Your task to perform on an android device: Open the calendar and show me this week's events? Image 0: 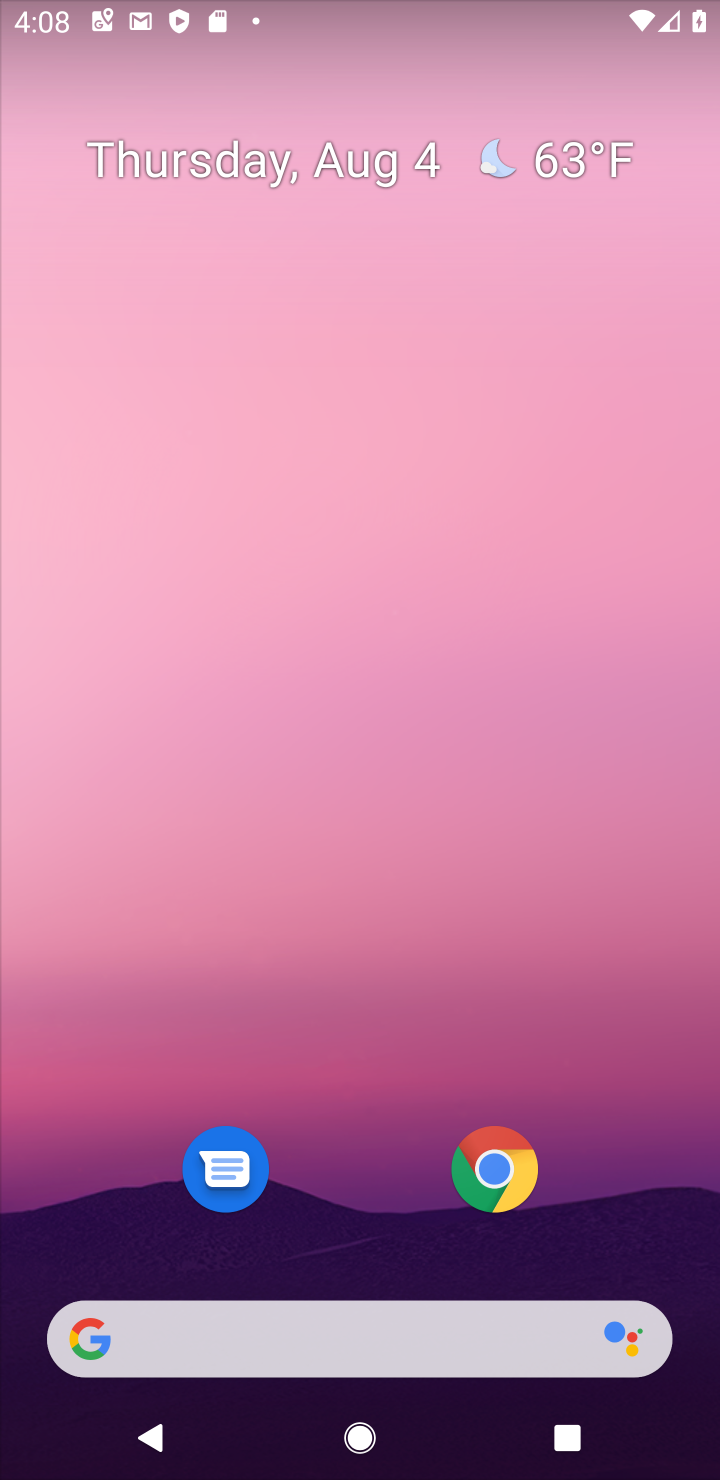
Step 0: drag from (292, 371) to (295, 0)
Your task to perform on an android device: Open the calendar and show me this week's events? Image 1: 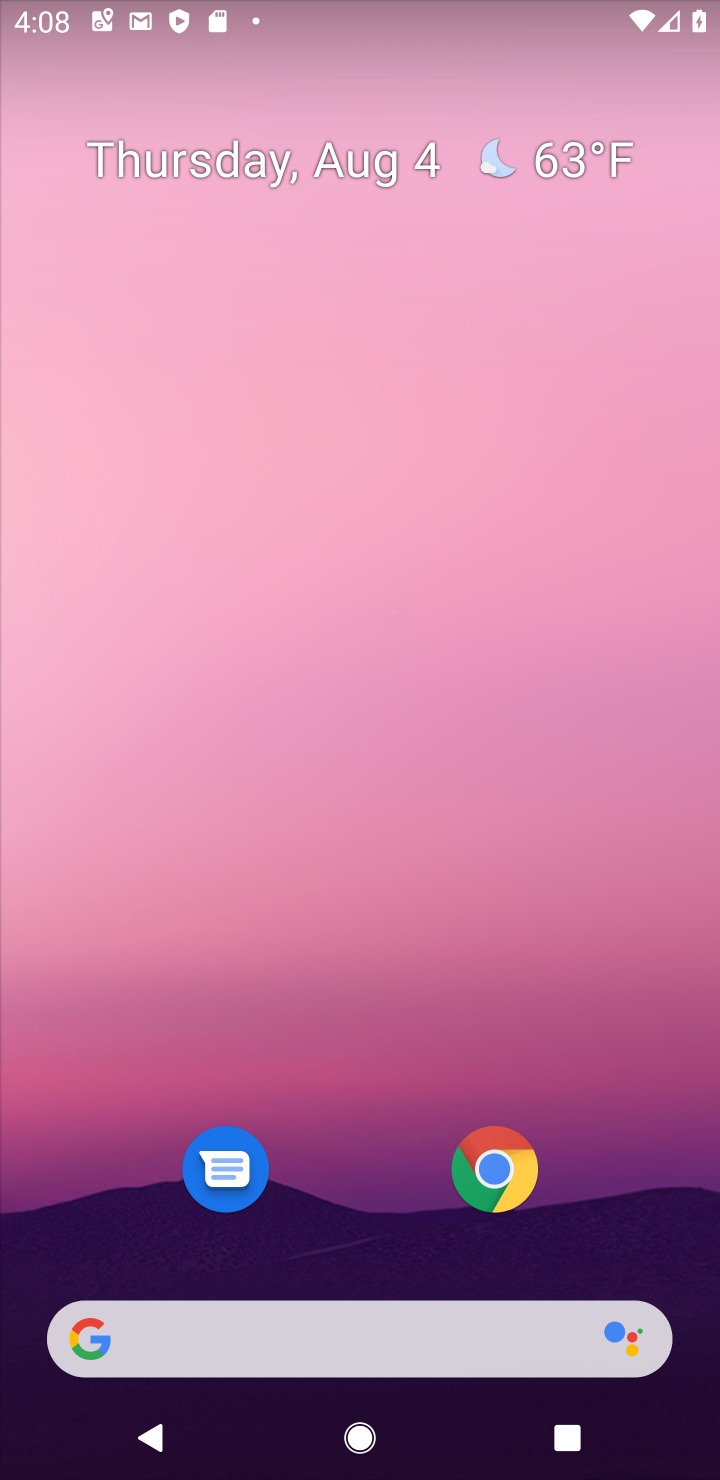
Step 1: drag from (329, 1198) to (366, 59)
Your task to perform on an android device: Open the calendar and show me this week's events? Image 2: 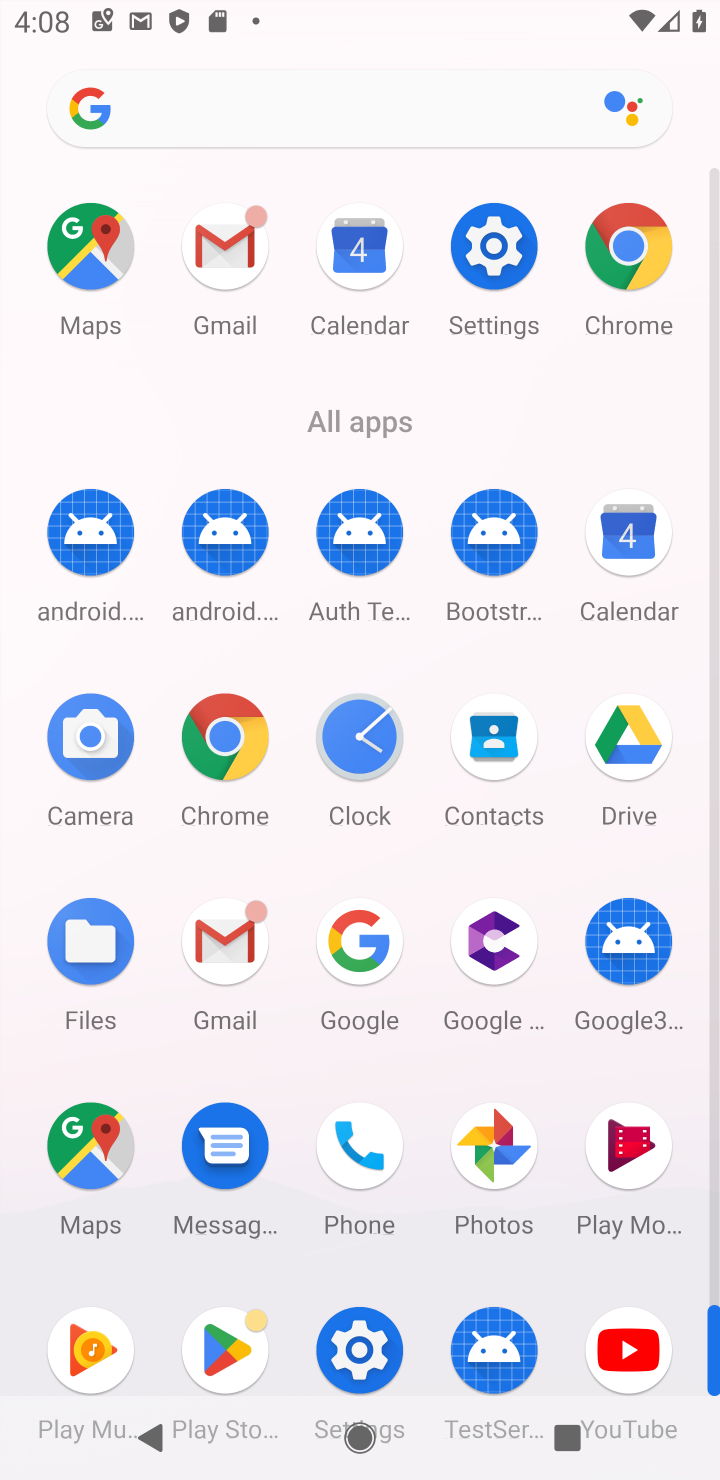
Step 2: click (608, 570)
Your task to perform on an android device: Open the calendar and show me this week's events? Image 3: 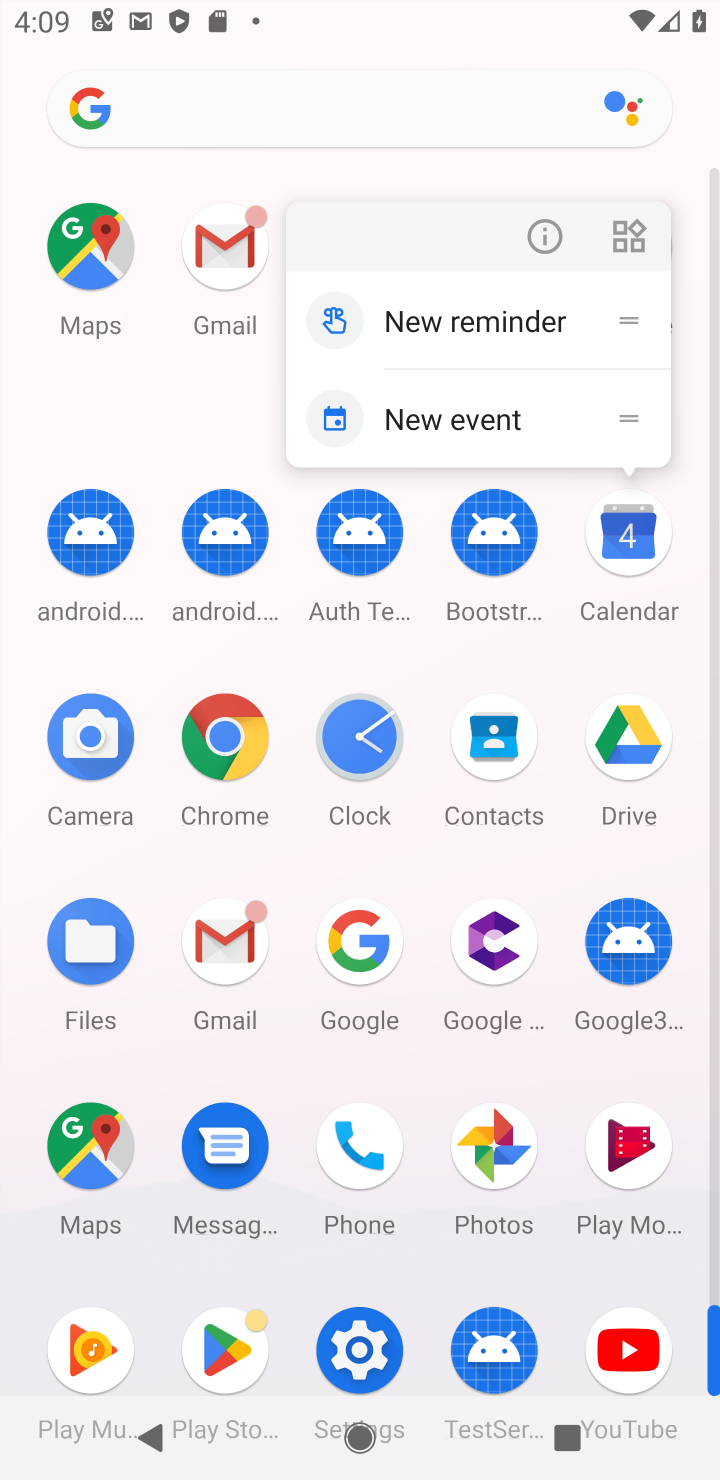
Step 3: click (627, 576)
Your task to perform on an android device: Open the calendar and show me this week's events? Image 4: 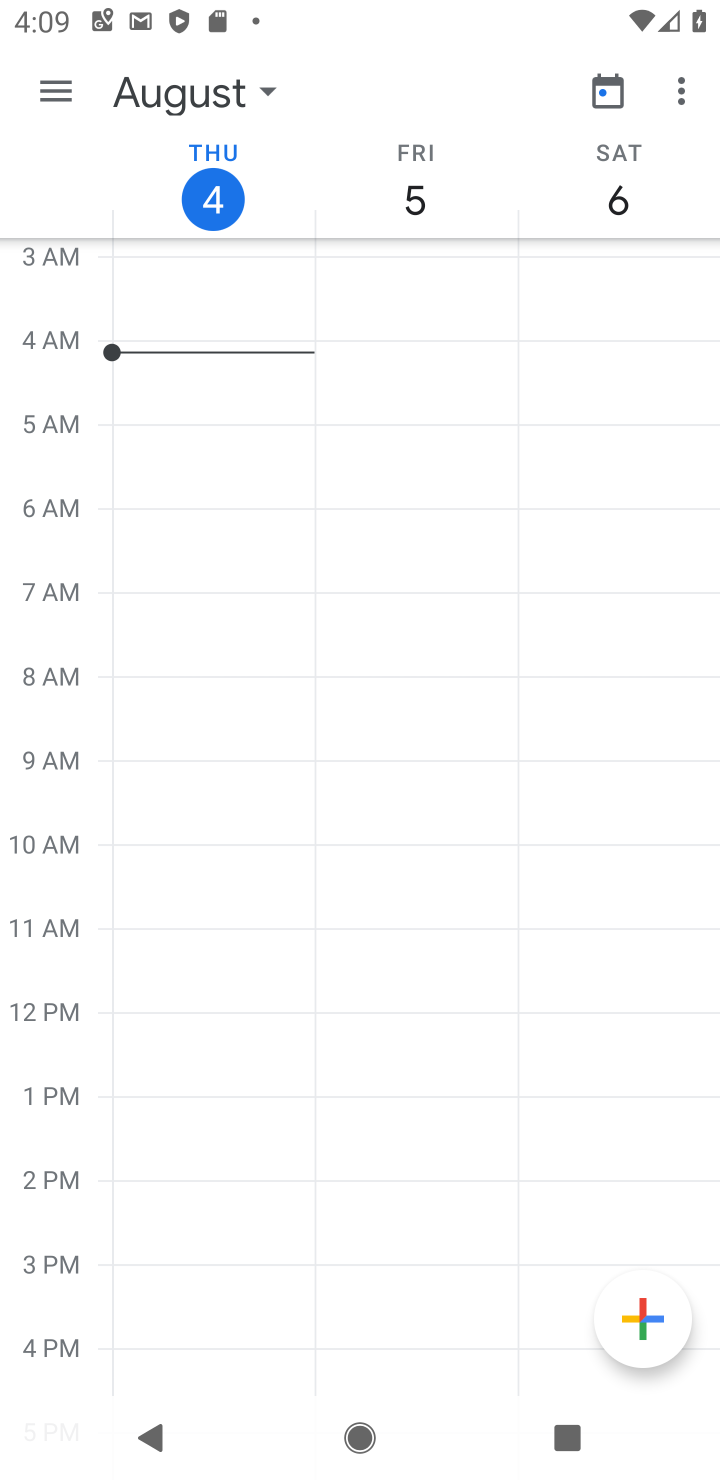
Step 4: click (628, 574)
Your task to perform on an android device: Open the calendar and show me this week's events? Image 5: 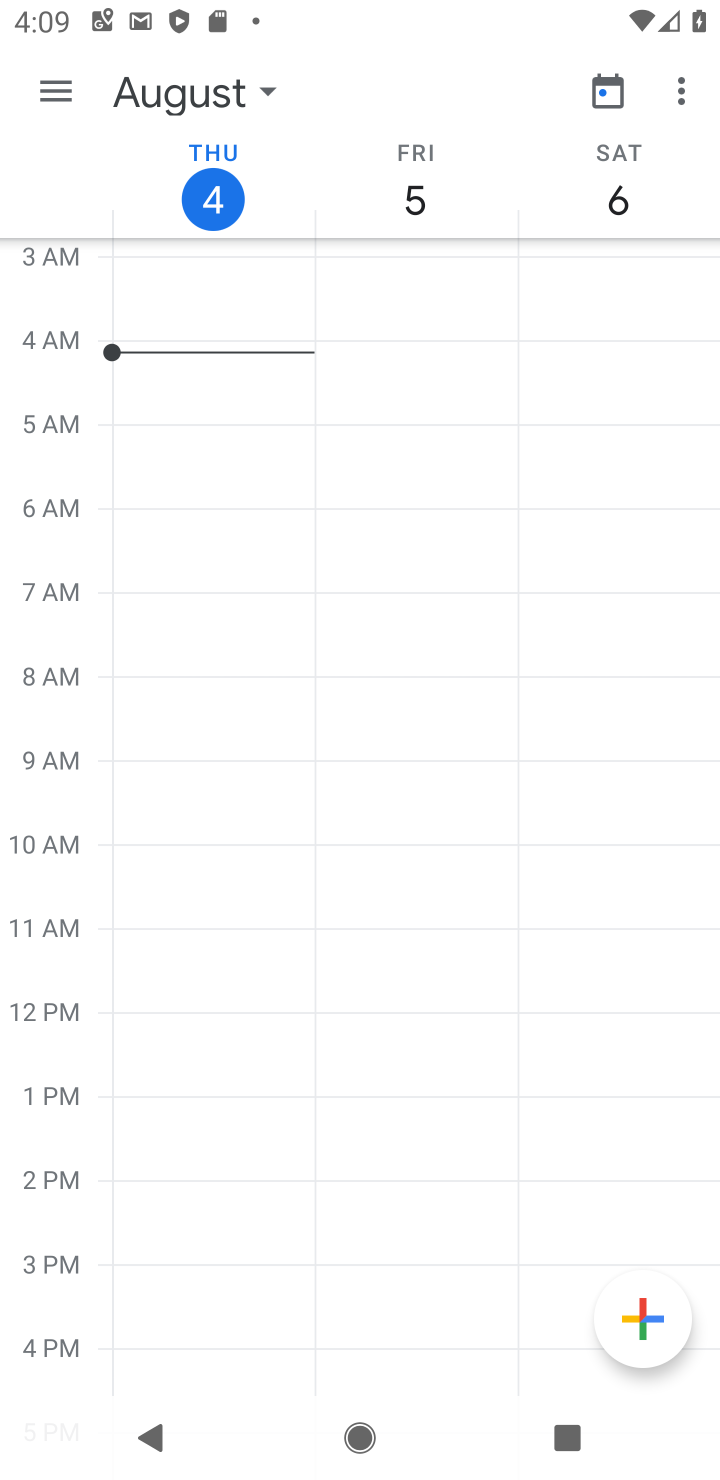
Step 5: click (74, 86)
Your task to perform on an android device: Open the calendar and show me this week's events? Image 6: 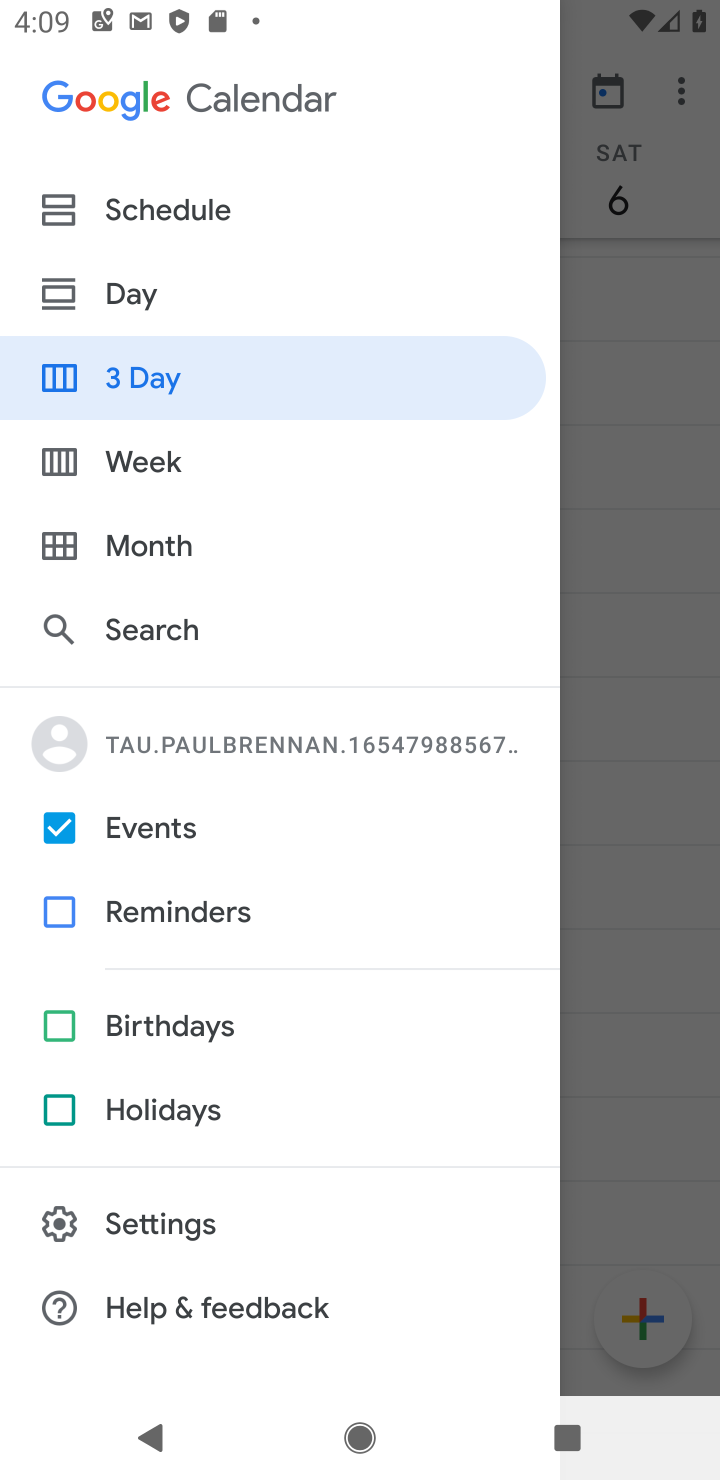
Step 6: click (140, 467)
Your task to perform on an android device: Open the calendar and show me this week's events? Image 7: 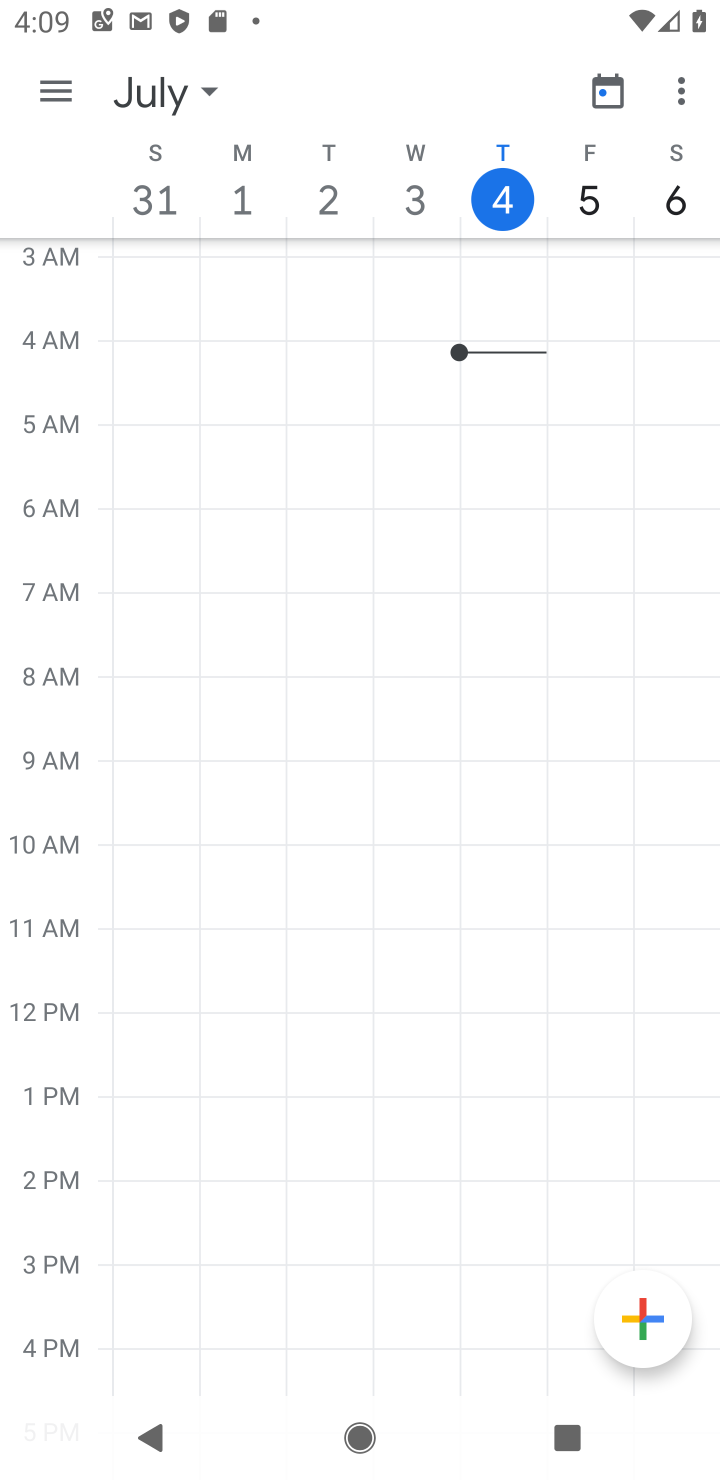
Step 7: task complete